Your task to perform on an android device: turn off wifi Image 0: 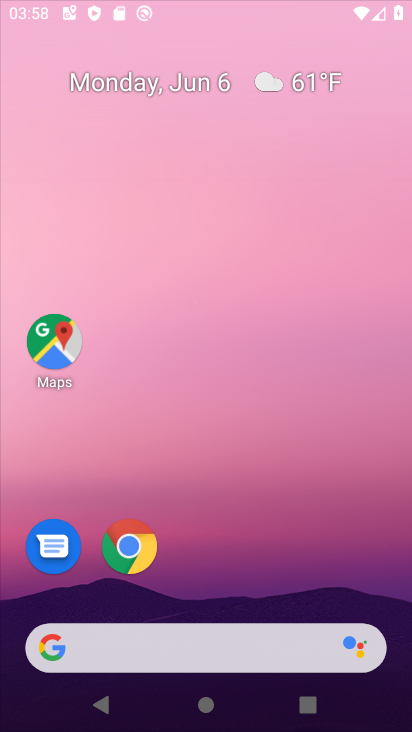
Step 0: press home button
Your task to perform on an android device: turn off wifi Image 1: 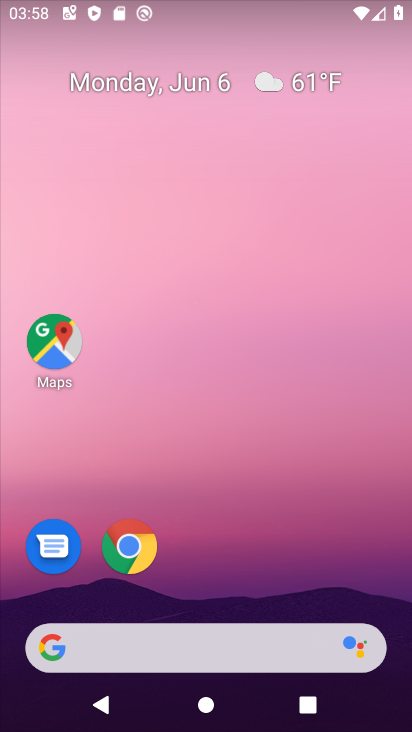
Step 1: drag from (217, 0) to (179, 334)
Your task to perform on an android device: turn off wifi Image 2: 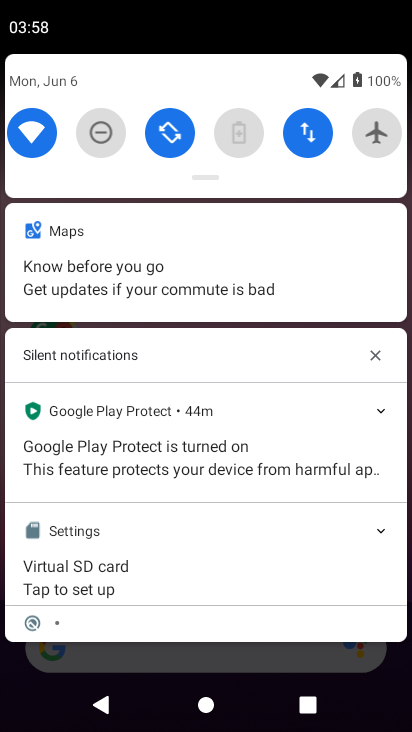
Step 2: click (25, 132)
Your task to perform on an android device: turn off wifi Image 3: 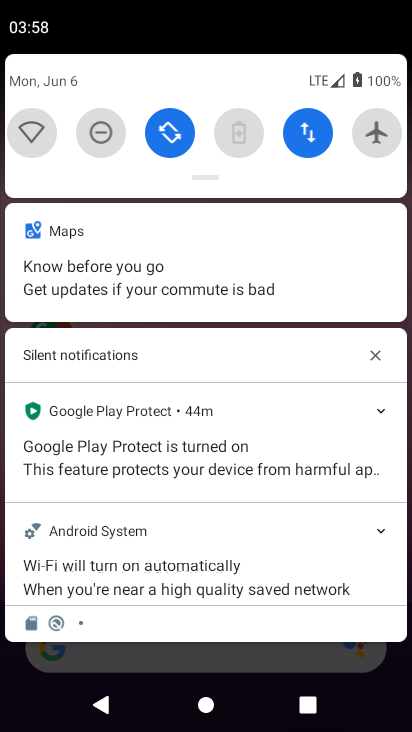
Step 3: task complete